Your task to perform on an android device: Open display settings Image 0: 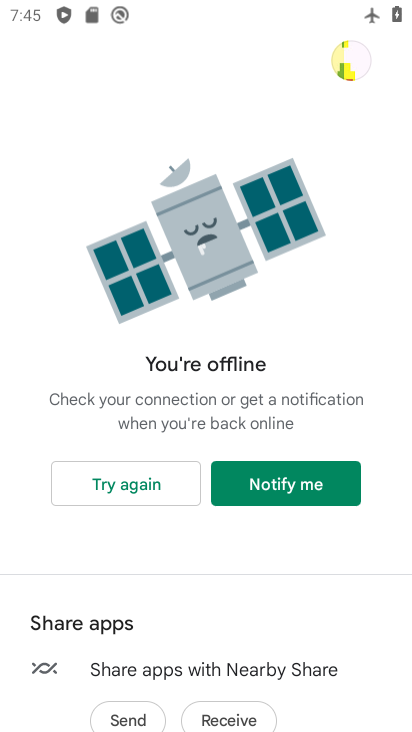
Step 0: press home button
Your task to perform on an android device: Open display settings Image 1: 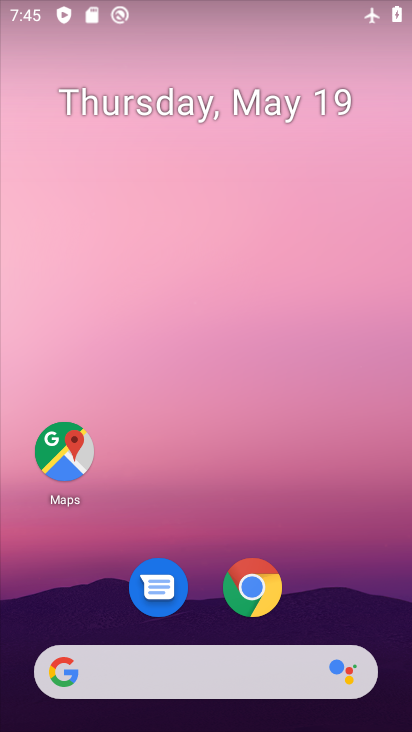
Step 1: drag from (187, 563) to (192, 178)
Your task to perform on an android device: Open display settings Image 2: 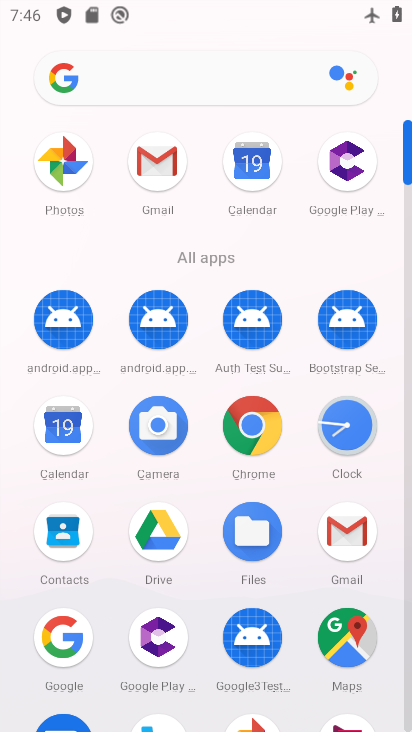
Step 2: drag from (206, 543) to (198, 253)
Your task to perform on an android device: Open display settings Image 3: 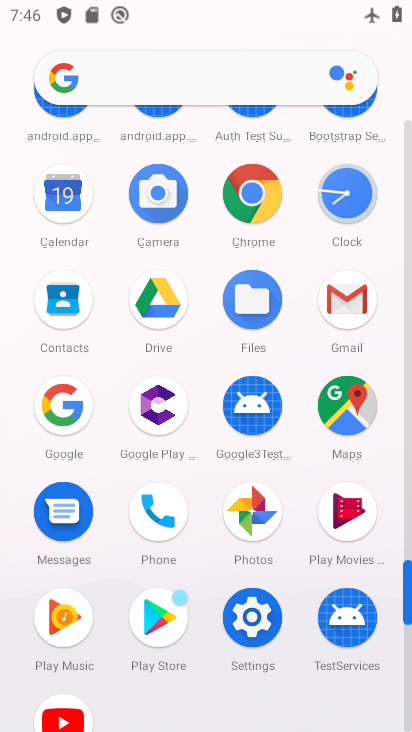
Step 3: click (255, 615)
Your task to perform on an android device: Open display settings Image 4: 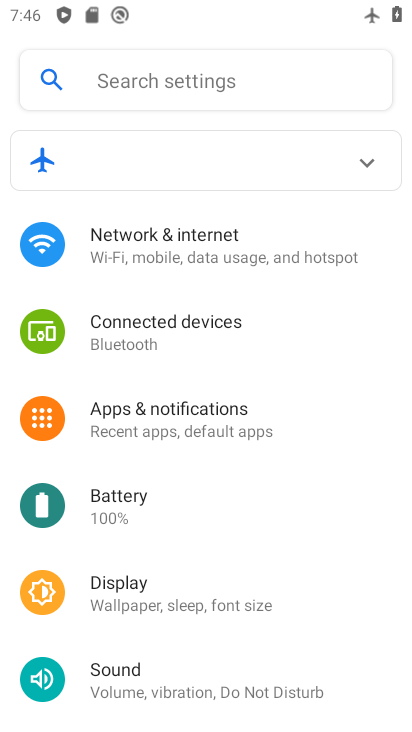
Step 4: click (145, 594)
Your task to perform on an android device: Open display settings Image 5: 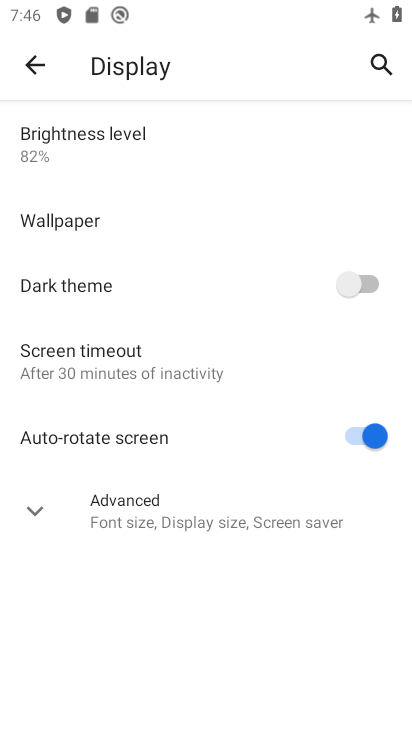
Step 5: task complete